Your task to perform on an android device: View the shopping cart on amazon.com. Add "macbook pro" to the cart on amazon.com, then select checkout. Image 0: 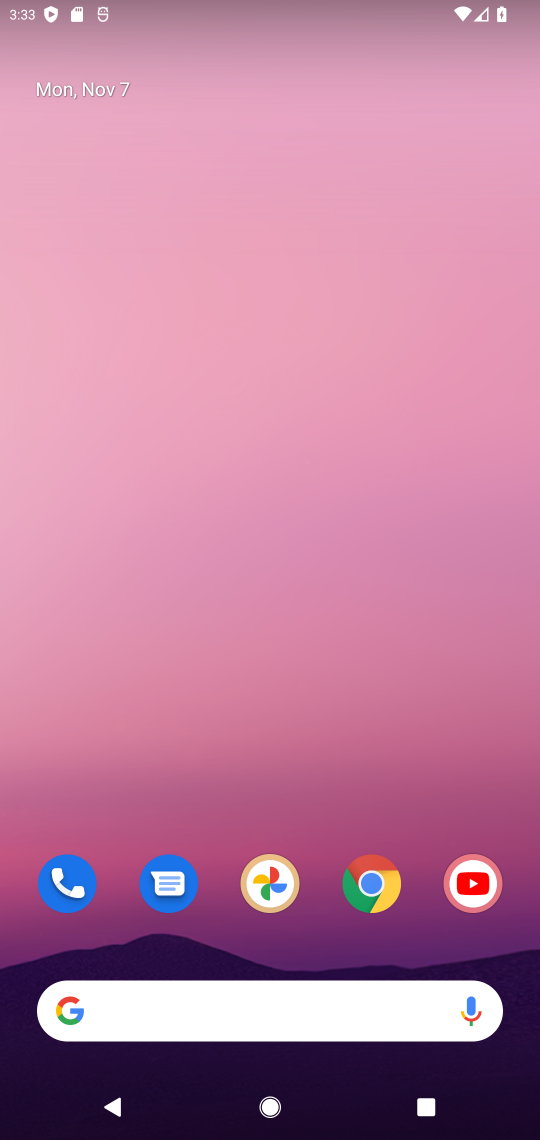
Step 0: click (367, 880)
Your task to perform on an android device: View the shopping cart on amazon.com. Add "macbook pro" to the cart on amazon.com, then select checkout. Image 1: 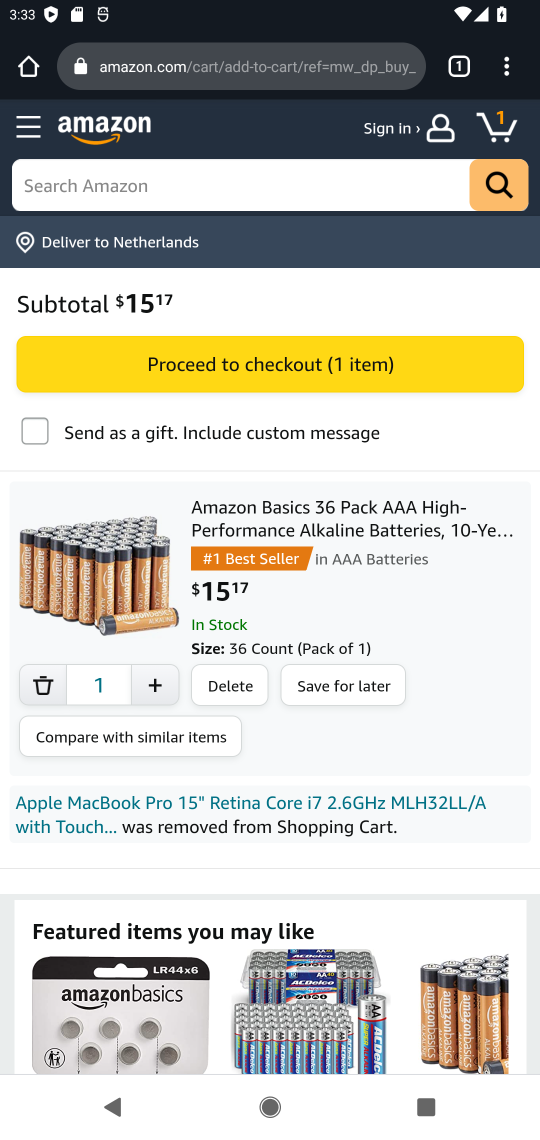
Step 1: click (228, 687)
Your task to perform on an android device: View the shopping cart on amazon.com. Add "macbook pro" to the cart on amazon.com, then select checkout. Image 2: 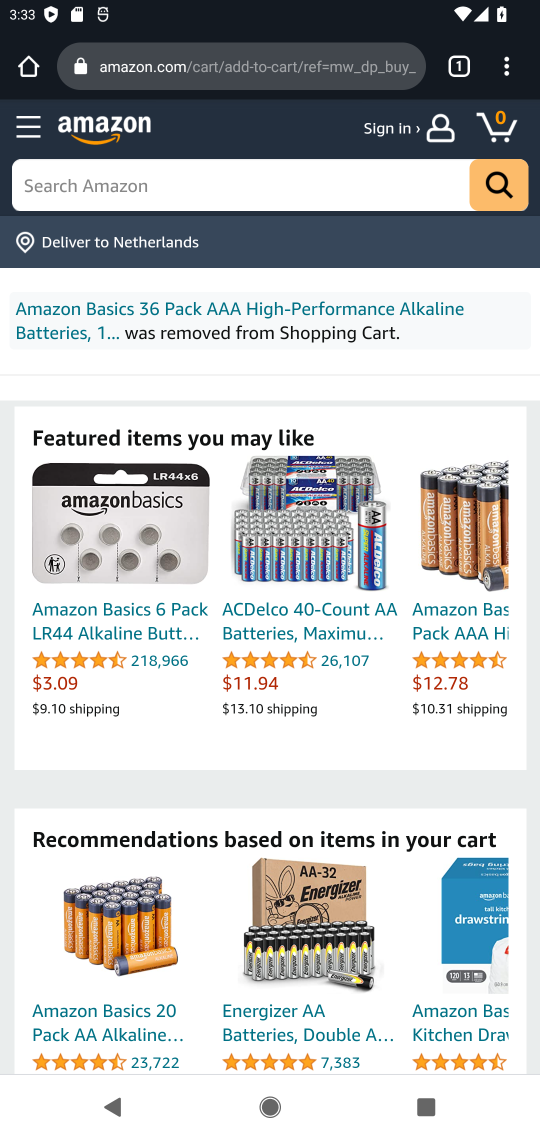
Step 2: click (187, 189)
Your task to perform on an android device: View the shopping cart on amazon.com. Add "macbook pro" to the cart on amazon.com, then select checkout. Image 3: 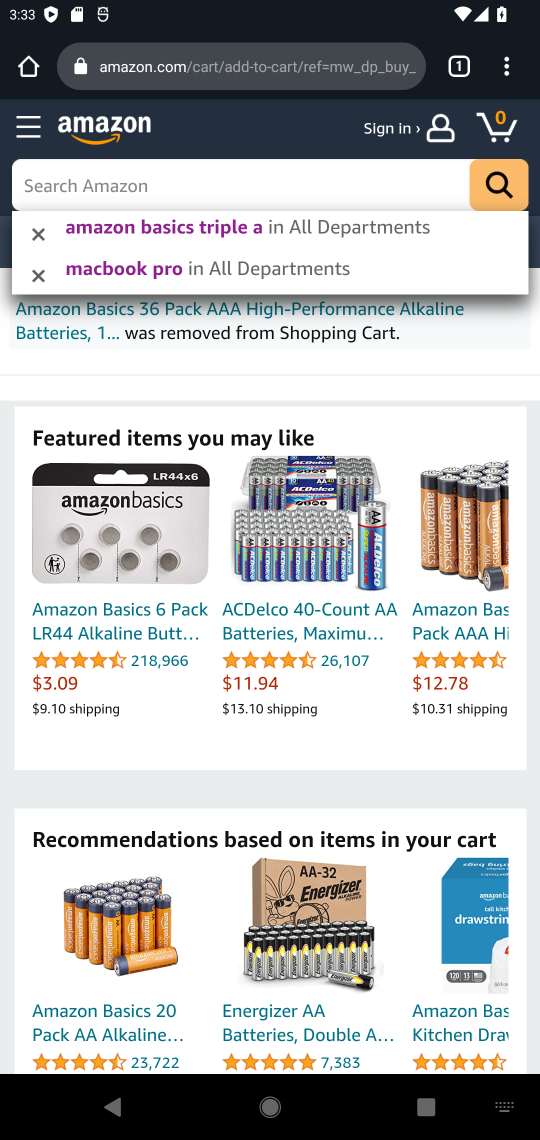
Step 3: click (187, 189)
Your task to perform on an android device: View the shopping cart on amazon.com. Add "macbook pro" to the cart on amazon.com, then select checkout. Image 4: 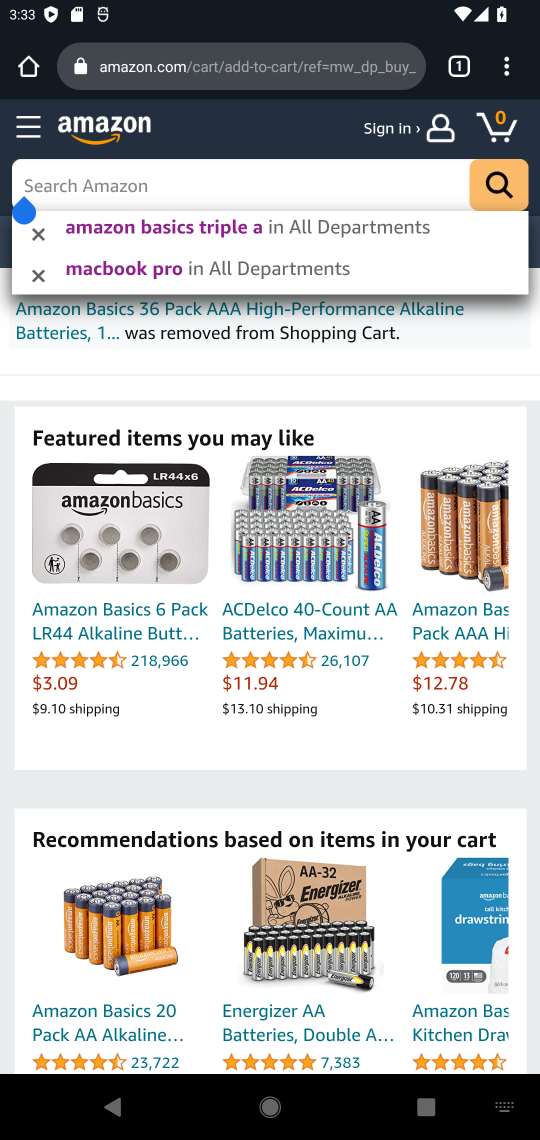
Step 4: type "macbook pro"
Your task to perform on an android device: View the shopping cart on amazon.com. Add "macbook pro" to the cart on amazon.com, then select checkout. Image 5: 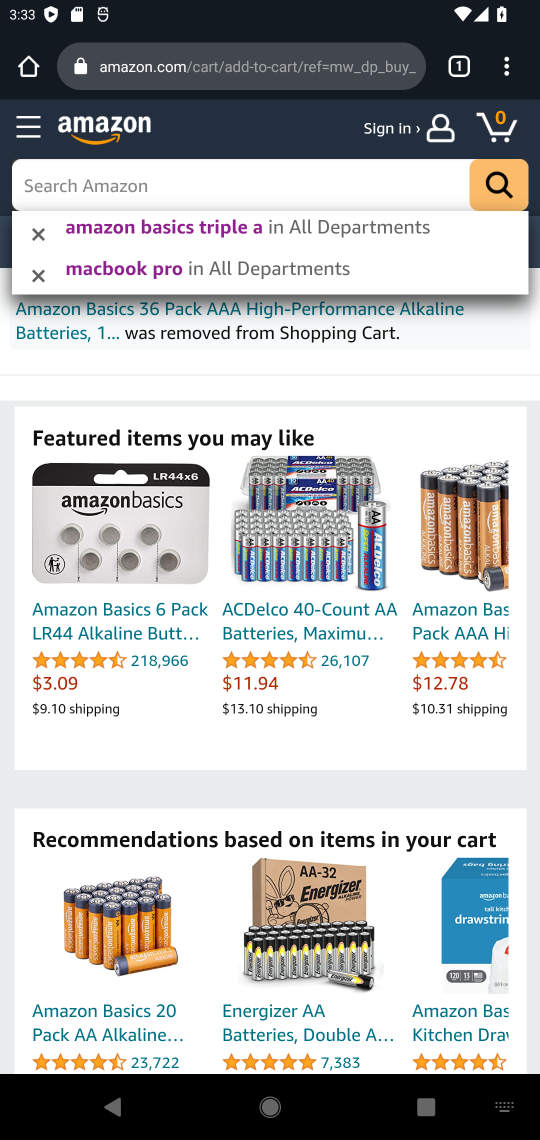
Step 5: press enter
Your task to perform on an android device: View the shopping cart on amazon.com. Add "macbook pro" to the cart on amazon.com, then select checkout. Image 6: 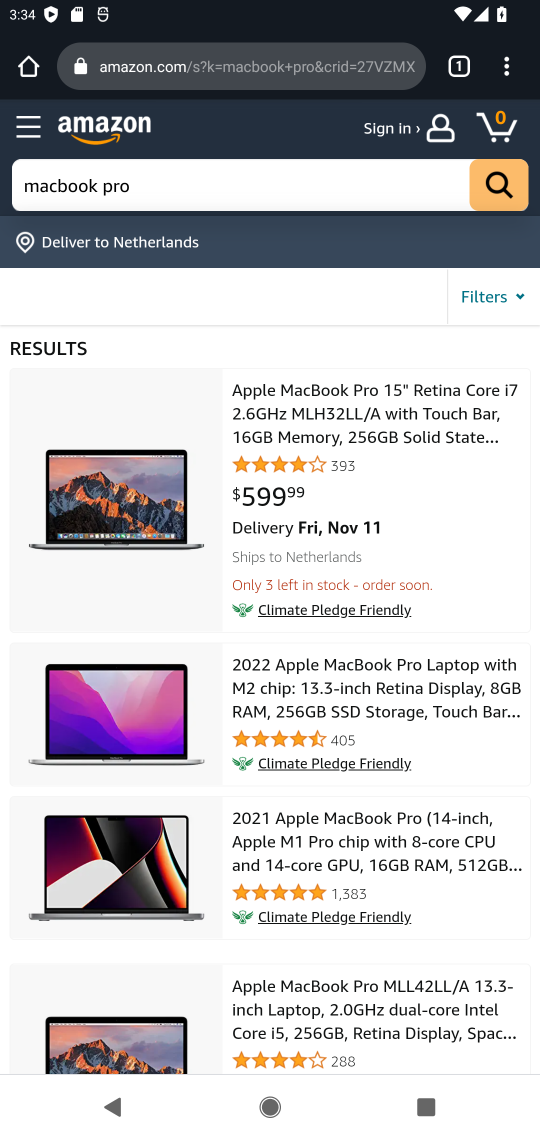
Step 6: click (346, 424)
Your task to perform on an android device: View the shopping cart on amazon.com. Add "macbook pro" to the cart on amazon.com, then select checkout. Image 7: 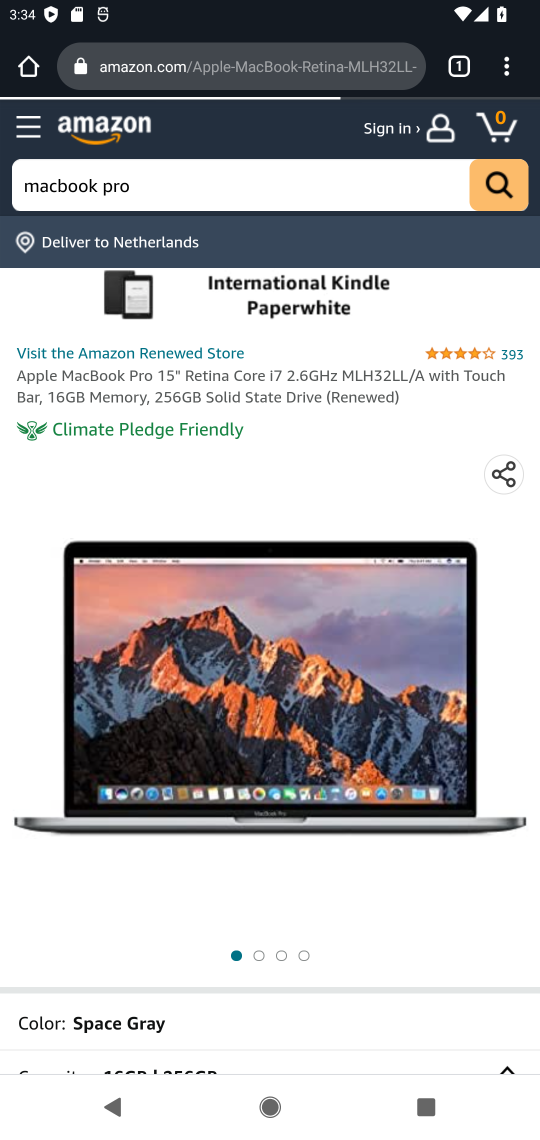
Step 7: drag from (344, 906) to (504, 51)
Your task to perform on an android device: View the shopping cart on amazon.com. Add "macbook pro" to the cart on amazon.com, then select checkout. Image 8: 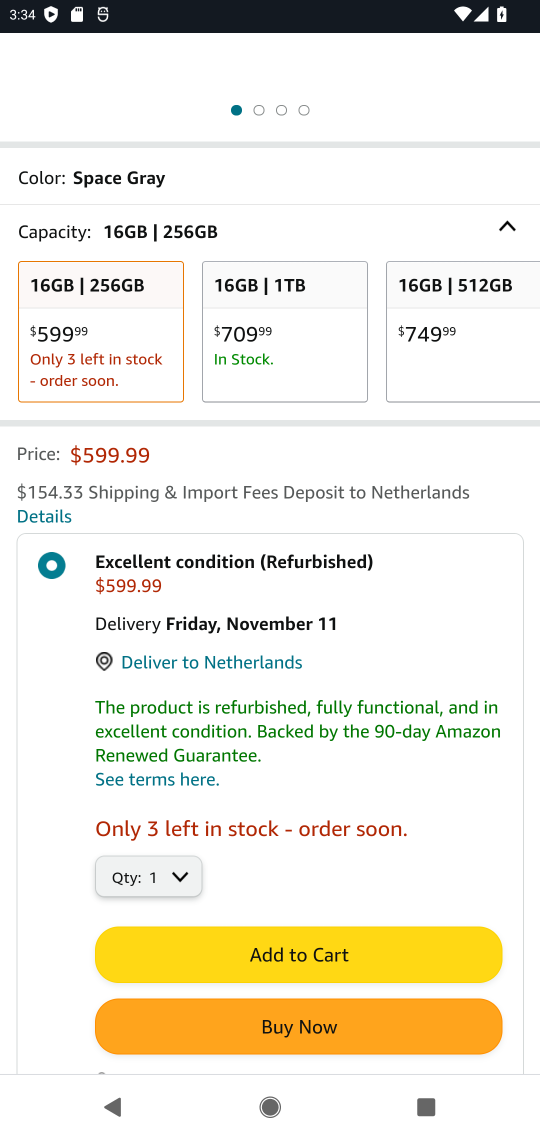
Step 8: click (310, 955)
Your task to perform on an android device: View the shopping cart on amazon.com. Add "macbook pro" to the cart on amazon.com, then select checkout. Image 9: 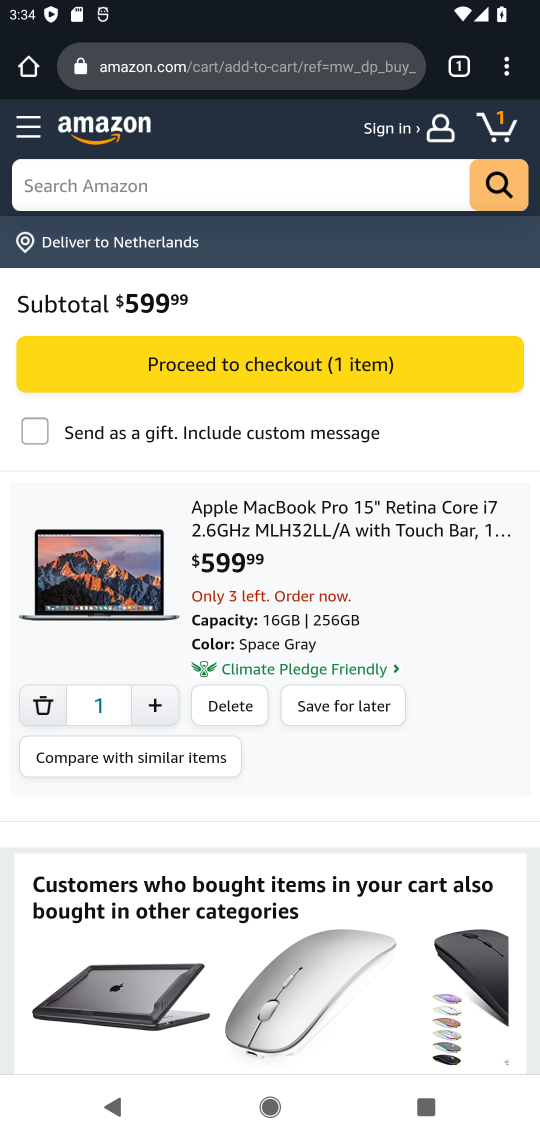
Step 9: click (330, 368)
Your task to perform on an android device: View the shopping cart on amazon.com. Add "macbook pro" to the cart on amazon.com, then select checkout. Image 10: 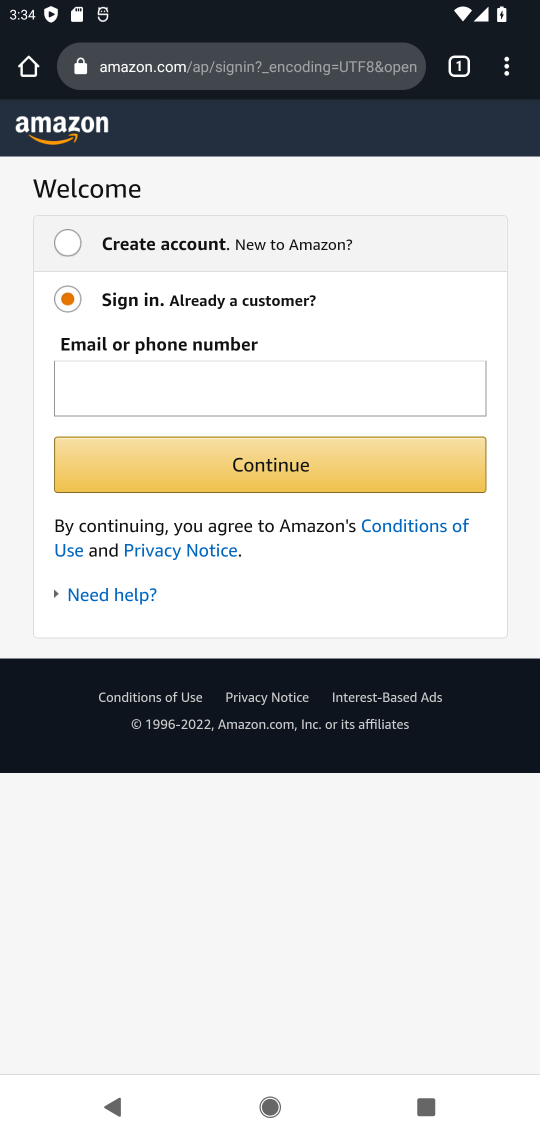
Step 10: task complete